Your task to perform on an android device: turn on priority inbox in the gmail app Image 0: 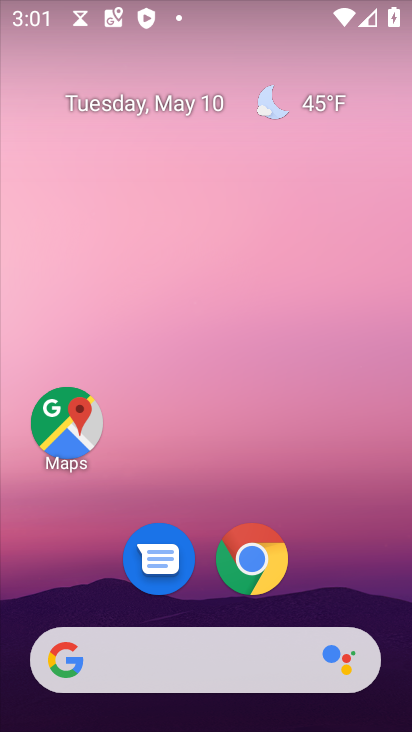
Step 0: drag from (358, 564) to (172, 4)
Your task to perform on an android device: turn on priority inbox in the gmail app Image 1: 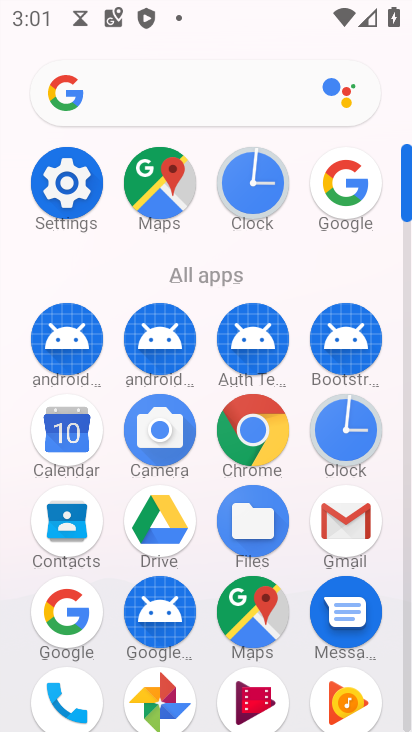
Step 1: click (251, 430)
Your task to perform on an android device: turn on priority inbox in the gmail app Image 2: 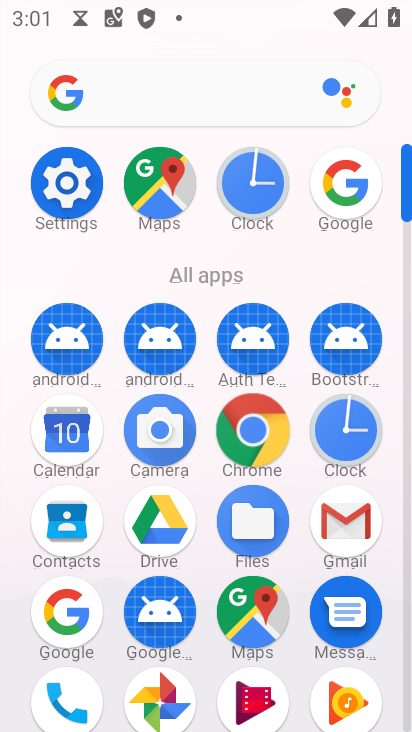
Step 2: click (243, 430)
Your task to perform on an android device: turn on priority inbox in the gmail app Image 3: 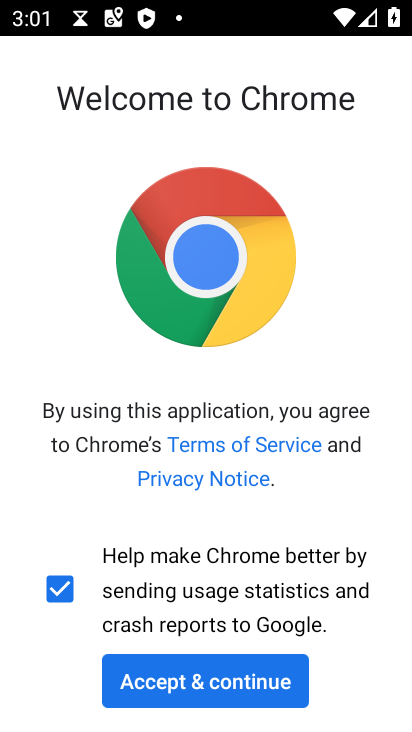
Step 3: click (192, 674)
Your task to perform on an android device: turn on priority inbox in the gmail app Image 4: 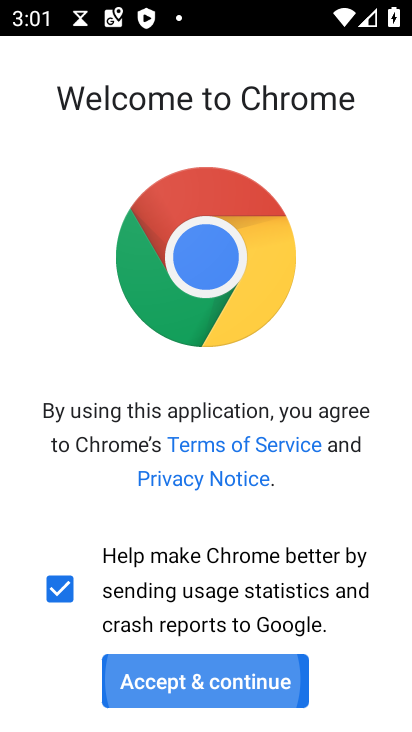
Step 4: click (192, 674)
Your task to perform on an android device: turn on priority inbox in the gmail app Image 5: 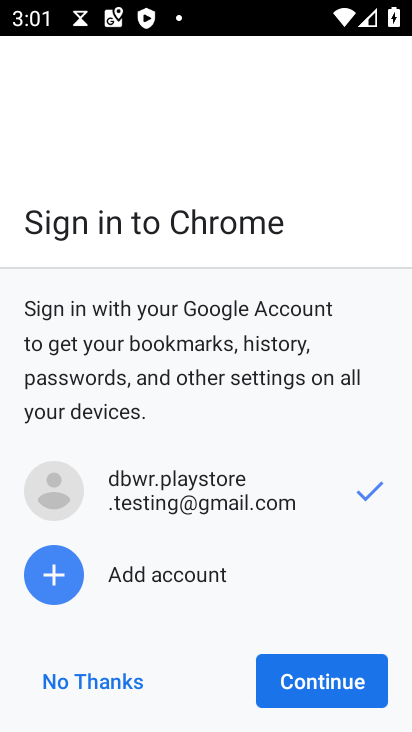
Step 5: click (192, 674)
Your task to perform on an android device: turn on priority inbox in the gmail app Image 6: 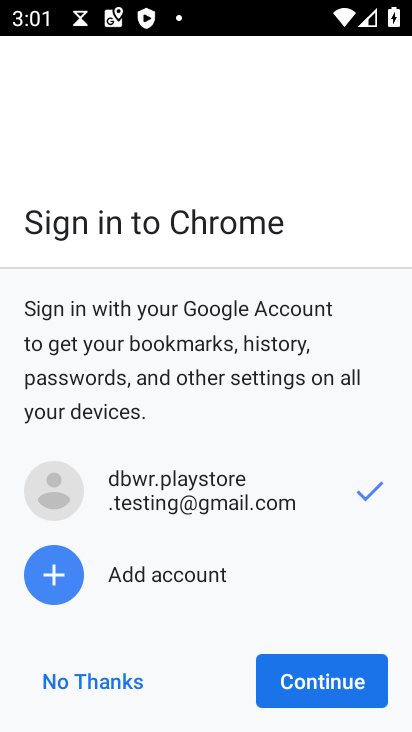
Step 6: click (193, 673)
Your task to perform on an android device: turn on priority inbox in the gmail app Image 7: 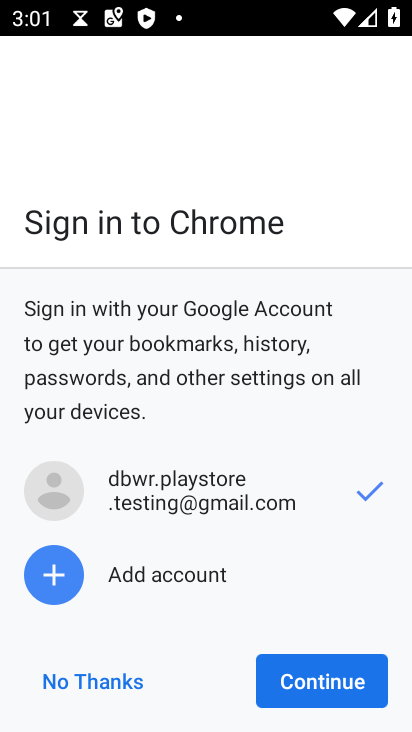
Step 7: click (334, 679)
Your task to perform on an android device: turn on priority inbox in the gmail app Image 8: 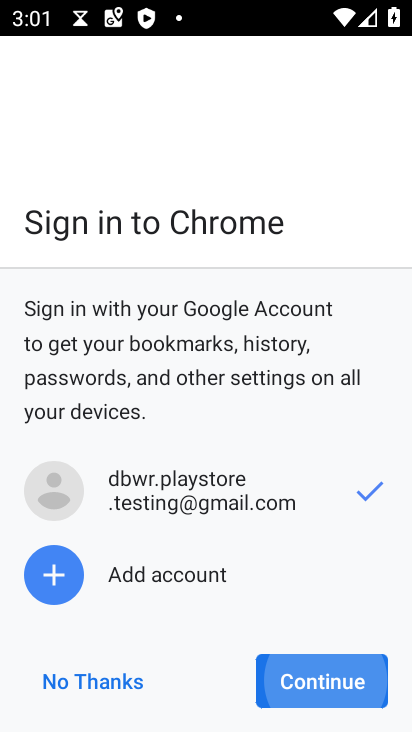
Step 8: click (327, 678)
Your task to perform on an android device: turn on priority inbox in the gmail app Image 9: 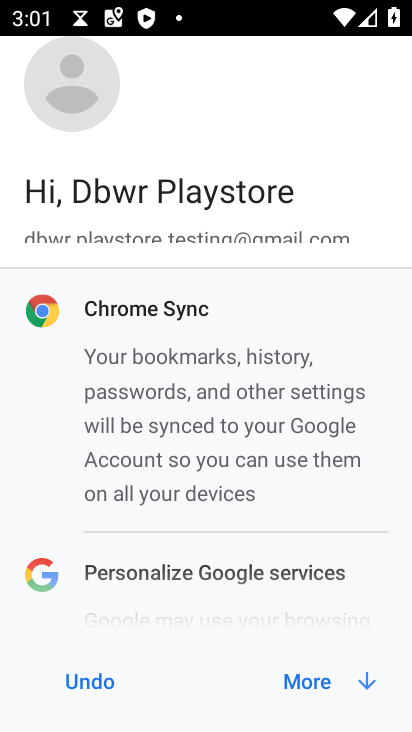
Step 9: click (327, 678)
Your task to perform on an android device: turn on priority inbox in the gmail app Image 10: 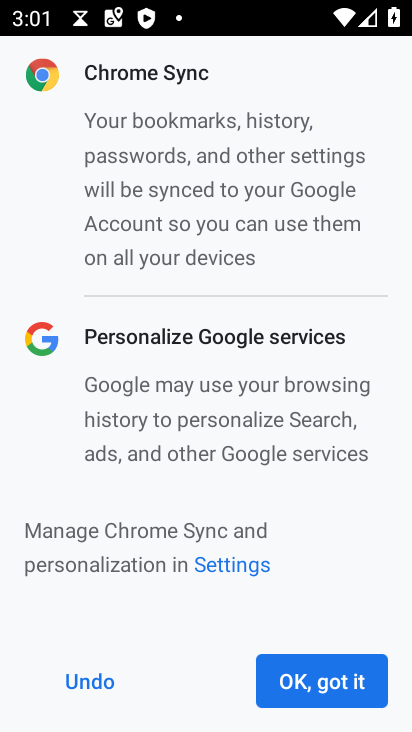
Step 10: click (327, 678)
Your task to perform on an android device: turn on priority inbox in the gmail app Image 11: 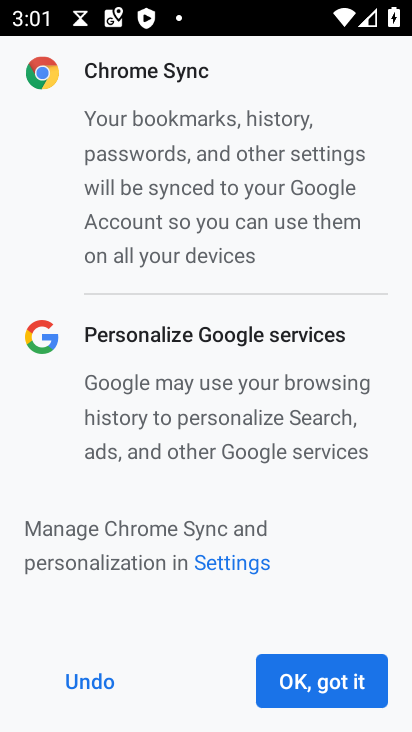
Step 11: click (327, 678)
Your task to perform on an android device: turn on priority inbox in the gmail app Image 12: 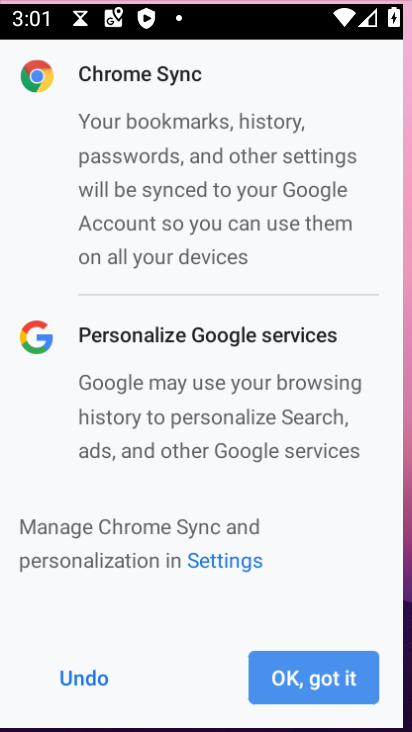
Step 12: click (328, 679)
Your task to perform on an android device: turn on priority inbox in the gmail app Image 13: 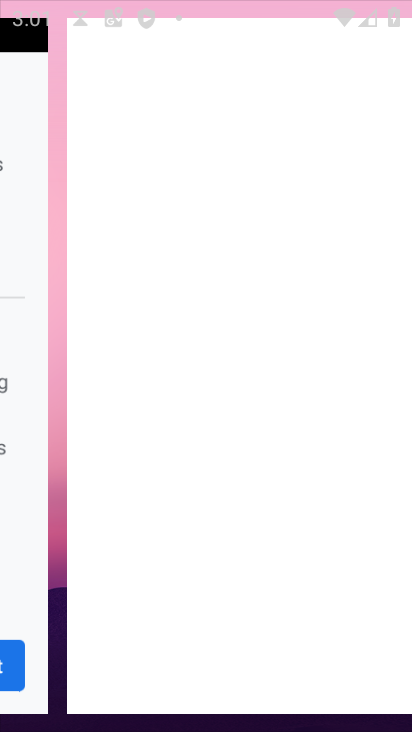
Step 13: click (328, 679)
Your task to perform on an android device: turn on priority inbox in the gmail app Image 14: 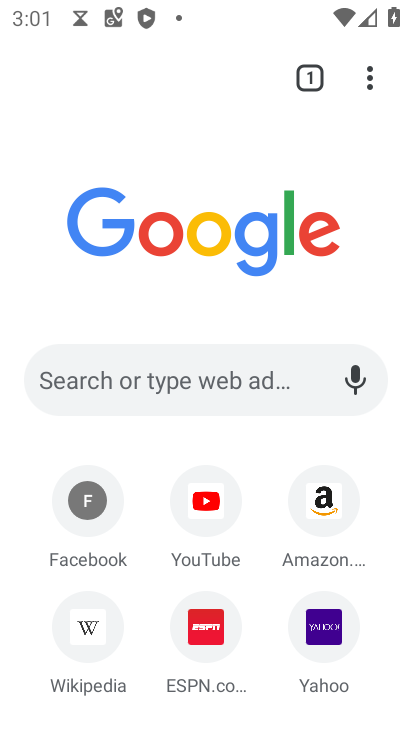
Step 14: press back button
Your task to perform on an android device: turn on priority inbox in the gmail app Image 15: 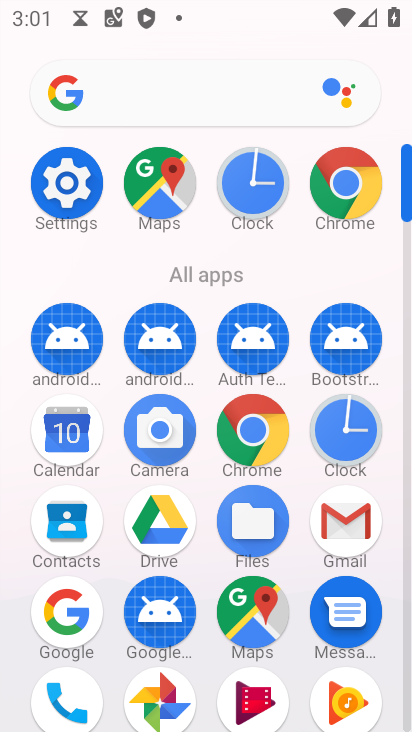
Step 15: click (322, 522)
Your task to perform on an android device: turn on priority inbox in the gmail app Image 16: 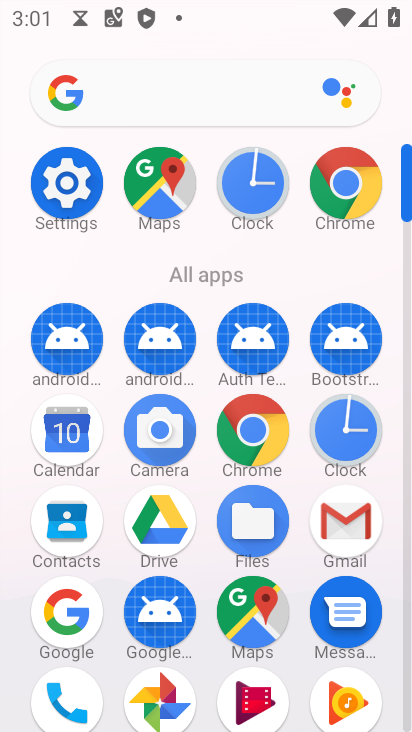
Step 16: click (322, 523)
Your task to perform on an android device: turn on priority inbox in the gmail app Image 17: 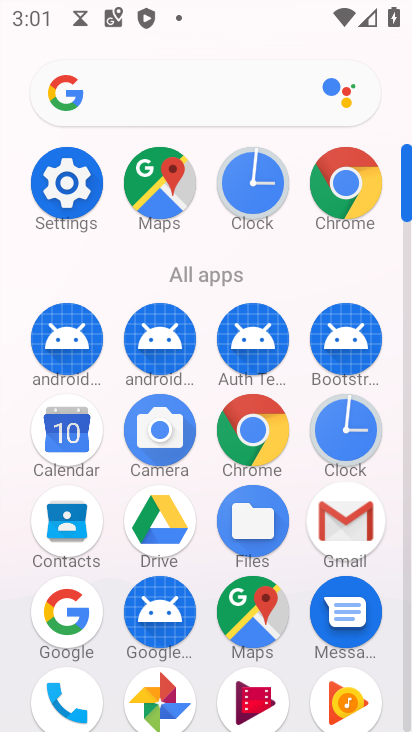
Step 17: click (322, 523)
Your task to perform on an android device: turn on priority inbox in the gmail app Image 18: 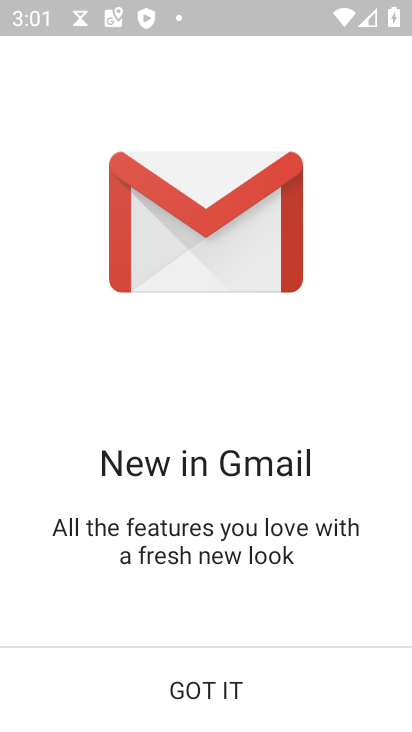
Step 18: click (191, 689)
Your task to perform on an android device: turn on priority inbox in the gmail app Image 19: 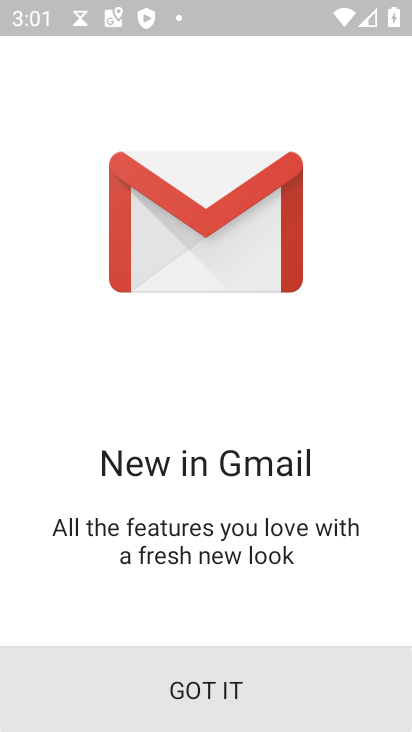
Step 19: click (190, 682)
Your task to perform on an android device: turn on priority inbox in the gmail app Image 20: 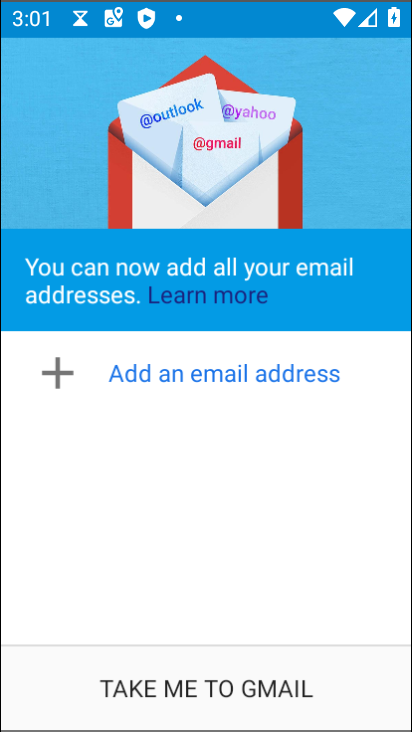
Step 20: click (192, 672)
Your task to perform on an android device: turn on priority inbox in the gmail app Image 21: 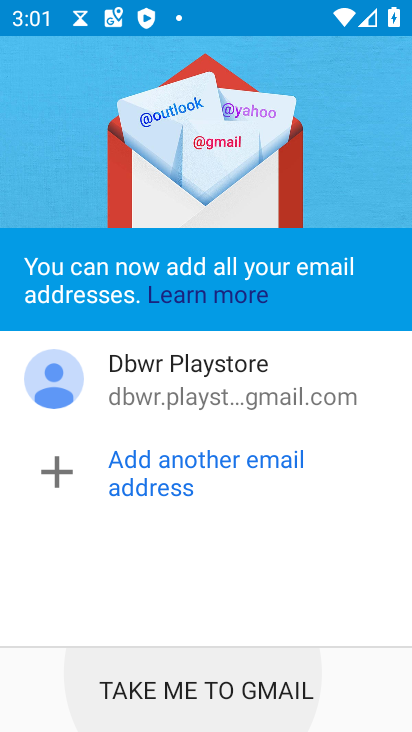
Step 21: click (192, 669)
Your task to perform on an android device: turn on priority inbox in the gmail app Image 22: 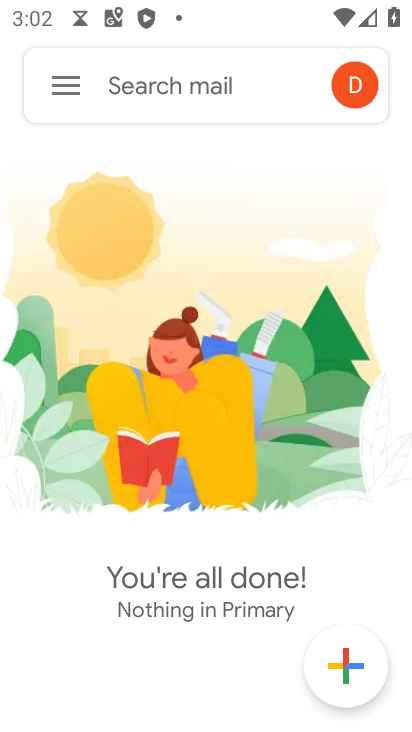
Step 22: click (65, 82)
Your task to perform on an android device: turn on priority inbox in the gmail app Image 23: 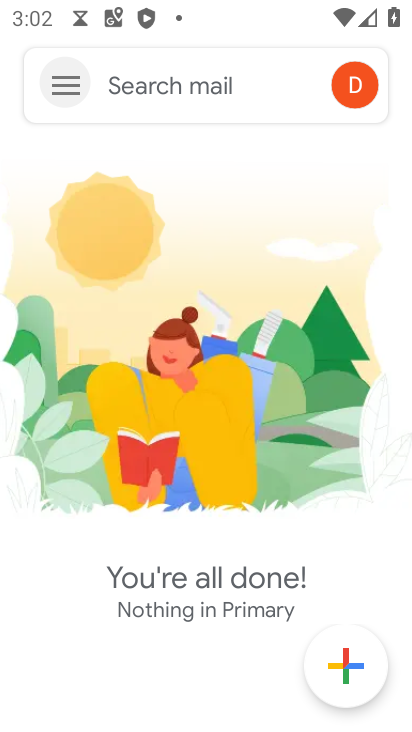
Step 23: click (66, 82)
Your task to perform on an android device: turn on priority inbox in the gmail app Image 24: 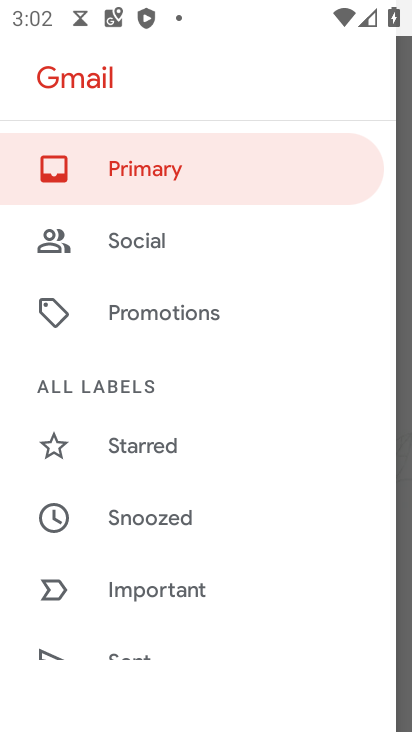
Step 24: drag from (230, 538) to (136, 147)
Your task to perform on an android device: turn on priority inbox in the gmail app Image 25: 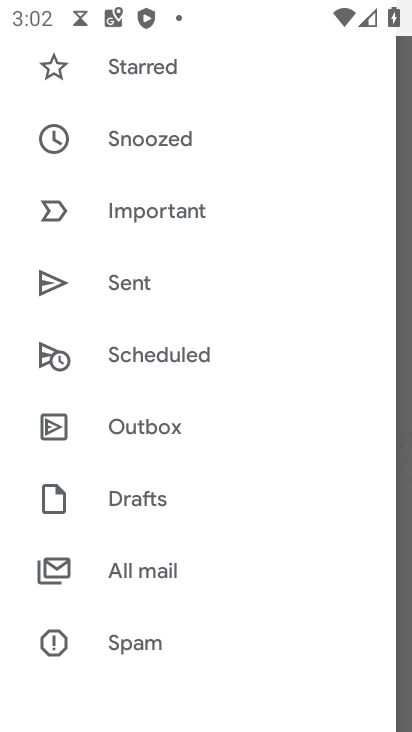
Step 25: drag from (174, 567) to (124, 234)
Your task to perform on an android device: turn on priority inbox in the gmail app Image 26: 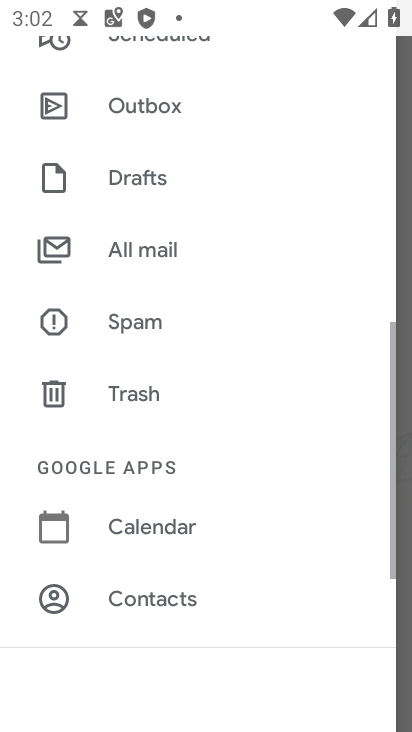
Step 26: drag from (171, 425) to (173, 99)
Your task to perform on an android device: turn on priority inbox in the gmail app Image 27: 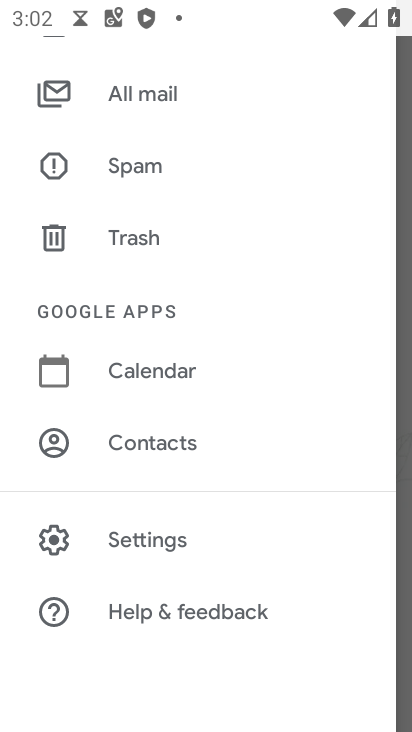
Step 27: click (138, 535)
Your task to perform on an android device: turn on priority inbox in the gmail app Image 28: 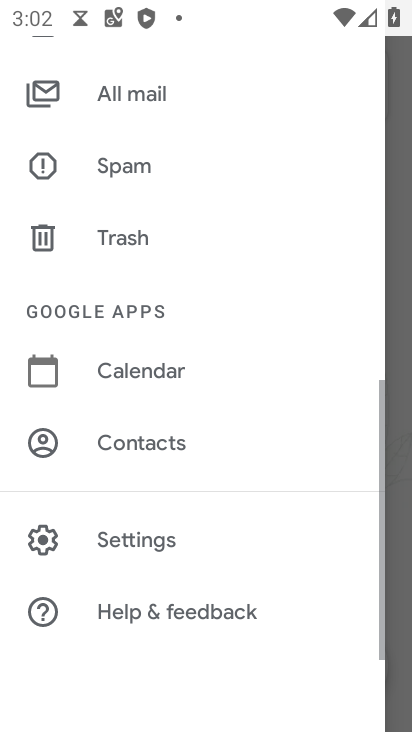
Step 28: click (138, 535)
Your task to perform on an android device: turn on priority inbox in the gmail app Image 29: 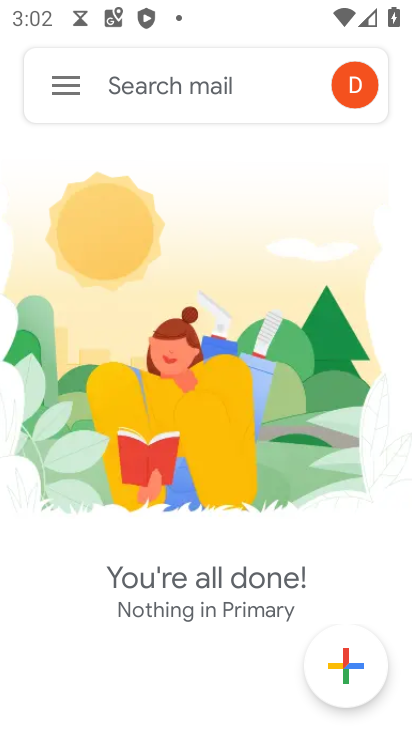
Step 29: click (138, 531)
Your task to perform on an android device: turn on priority inbox in the gmail app Image 30: 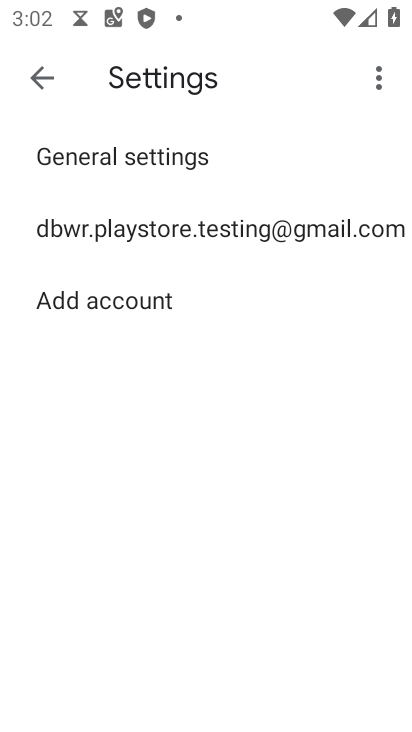
Step 30: click (126, 233)
Your task to perform on an android device: turn on priority inbox in the gmail app Image 31: 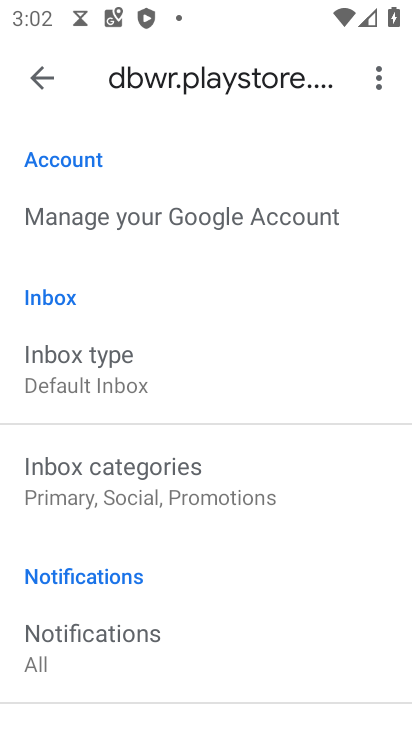
Step 31: drag from (147, 534) to (110, 202)
Your task to perform on an android device: turn on priority inbox in the gmail app Image 32: 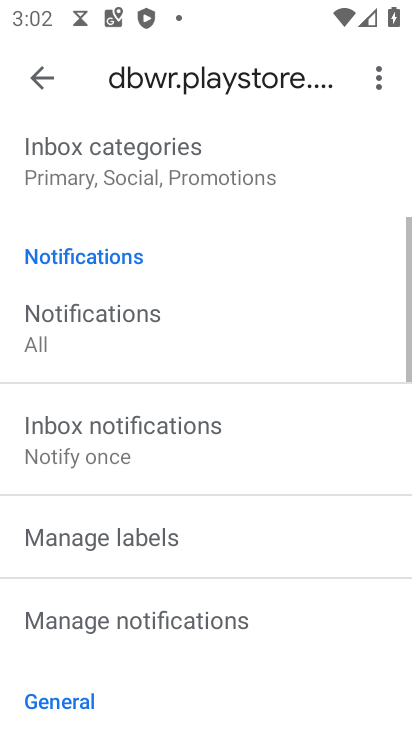
Step 32: drag from (155, 469) to (85, 40)
Your task to perform on an android device: turn on priority inbox in the gmail app Image 33: 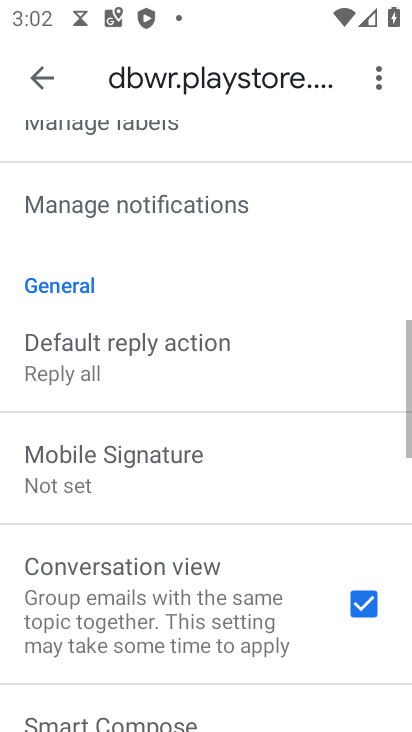
Step 33: drag from (174, 496) to (116, 55)
Your task to perform on an android device: turn on priority inbox in the gmail app Image 34: 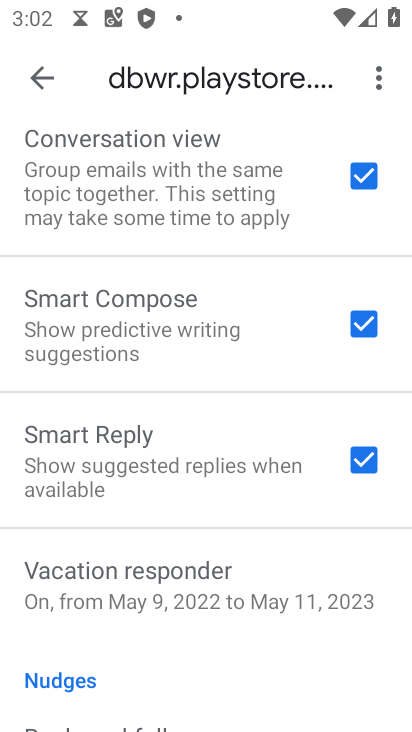
Step 34: drag from (138, 277) to (209, 517)
Your task to perform on an android device: turn on priority inbox in the gmail app Image 35: 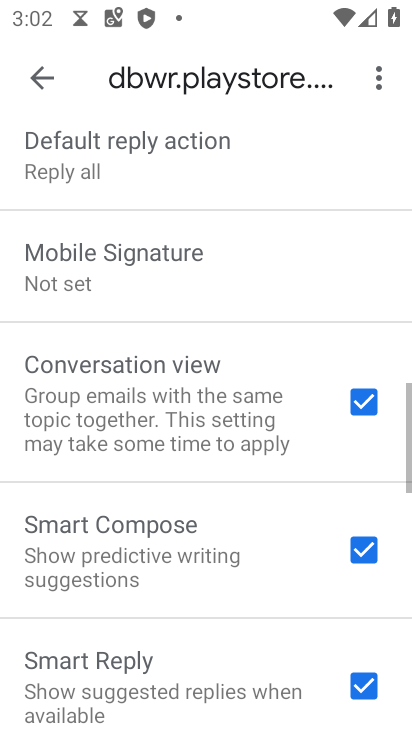
Step 35: drag from (121, 193) to (216, 538)
Your task to perform on an android device: turn on priority inbox in the gmail app Image 36: 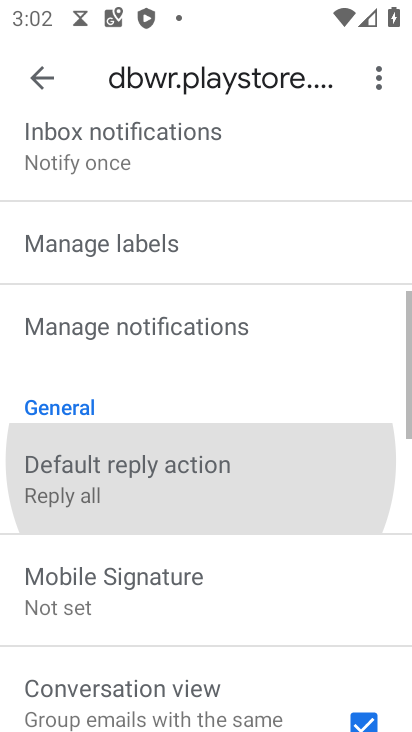
Step 36: drag from (118, 206) to (208, 528)
Your task to perform on an android device: turn on priority inbox in the gmail app Image 37: 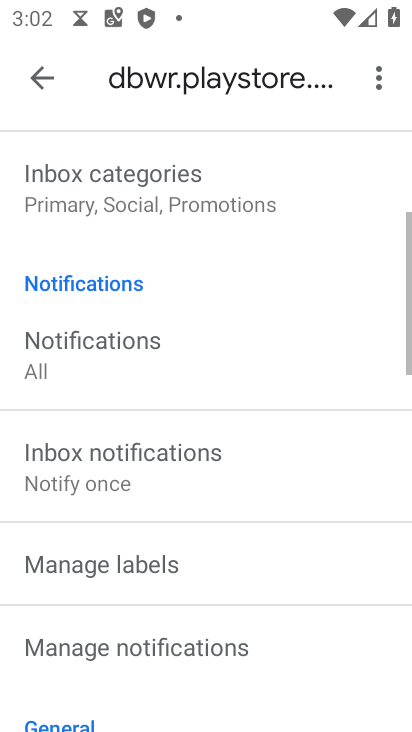
Step 37: drag from (140, 292) to (249, 620)
Your task to perform on an android device: turn on priority inbox in the gmail app Image 38: 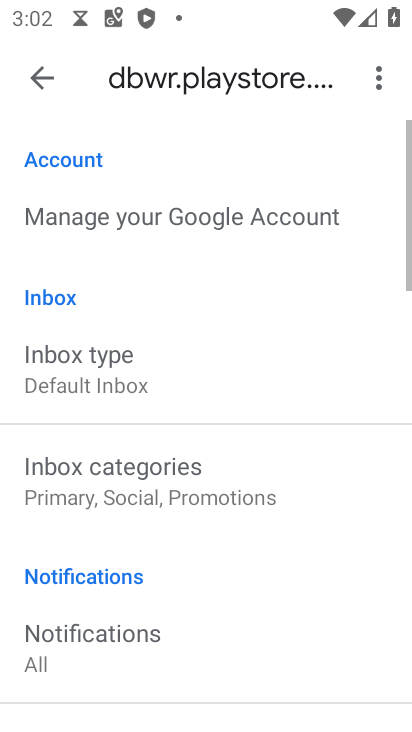
Step 38: drag from (161, 262) to (188, 542)
Your task to perform on an android device: turn on priority inbox in the gmail app Image 39: 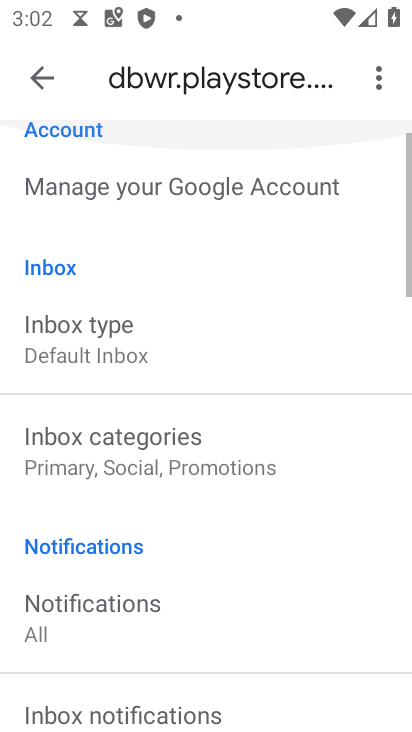
Step 39: drag from (125, 322) to (200, 602)
Your task to perform on an android device: turn on priority inbox in the gmail app Image 40: 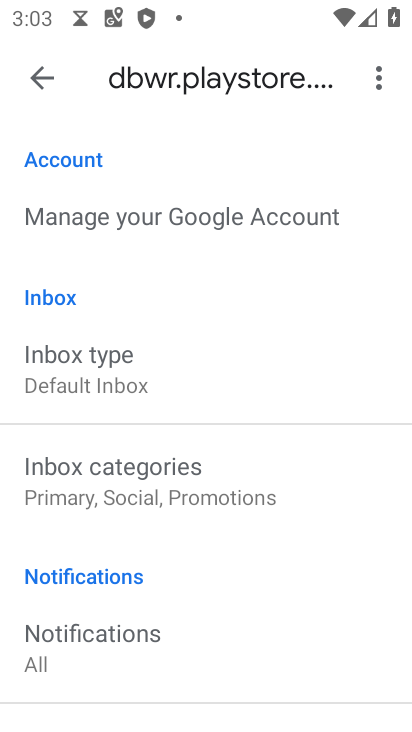
Step 40: click (60, 362)
Your task to perform on an android device: turn on priority inbox in the gmail app Image 41: 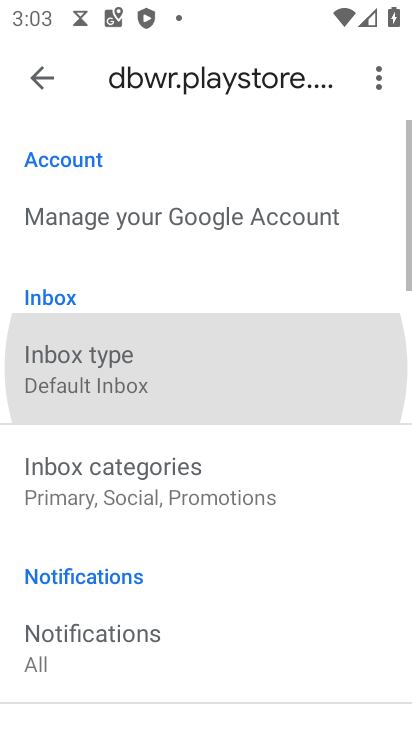
Step 41: click (60, 369)
Your task to perform on an android device: turn on priority inbox in the gmail app Image 42: 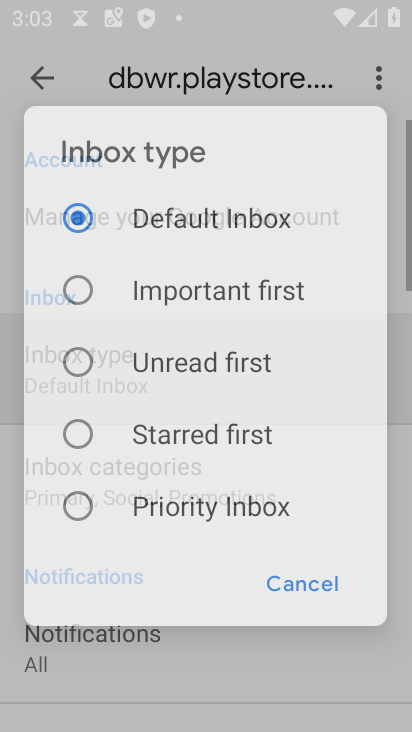
Step 42: click (60, 369)
Your task to perform on an android device: turn on priority inbox in the gmail app Image 43: 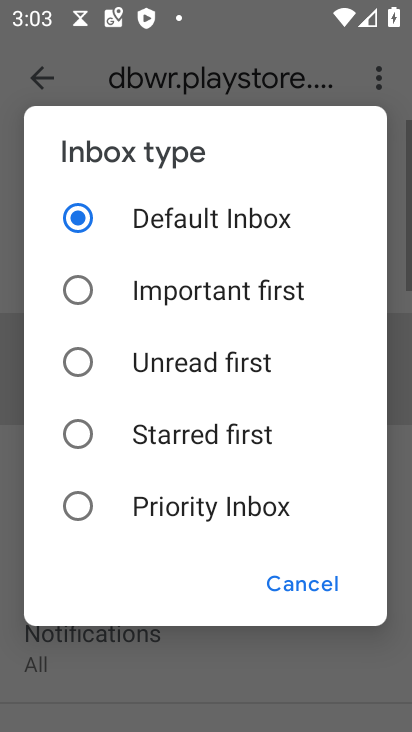
Step 43: click (61, 369)
Your task to perform on an android device: turn on priority inbox in the gmail app Image 44: 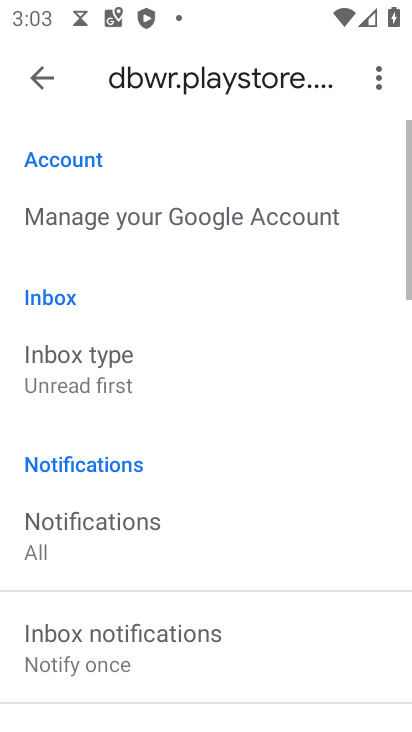
Step 44: click (82, 381)
Your task to perform on an android device: turn on priority inbox in the gmail app Image 45: 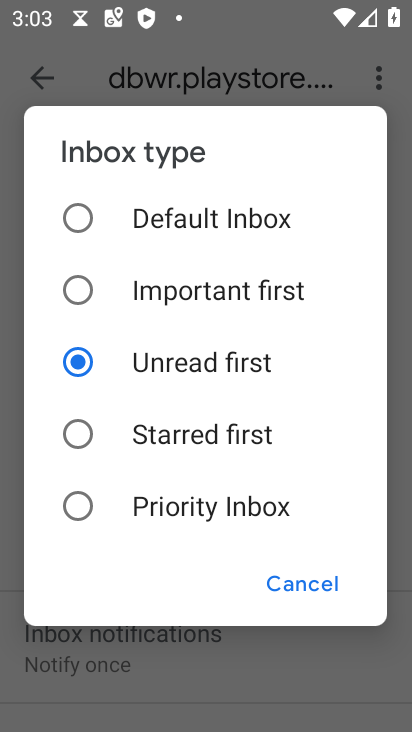
Step 45: click (81, 505)
Your task to perform on an android device: turn on priority inbox in the gmail app Image 46: 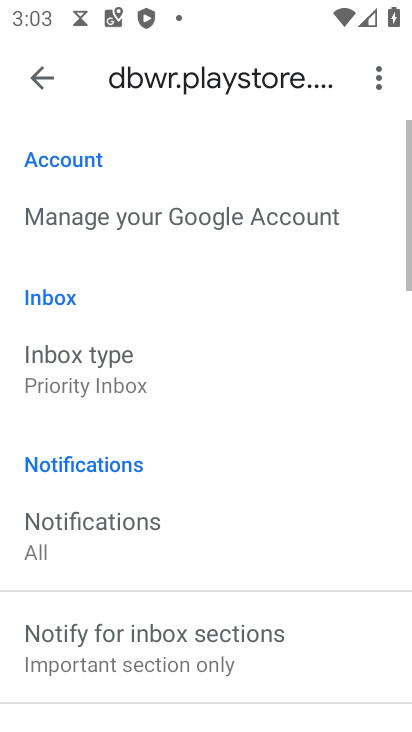
Step 46: click (81, 505)
Your task to perform on an android device: turn on priority inbox in the gmail app Image 47: 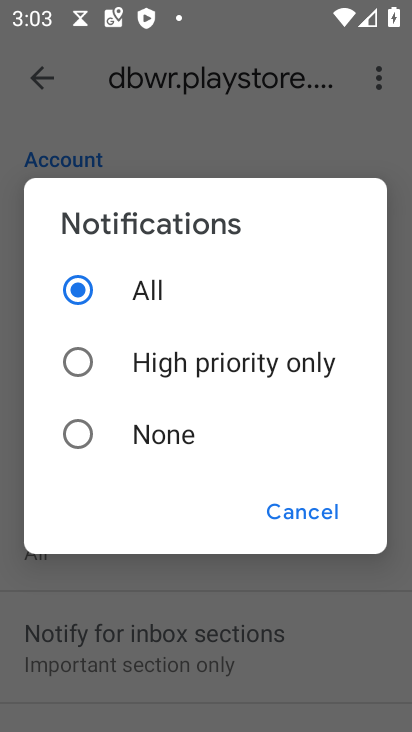
Step 47: click (307, 503)
Your task to perform on an android device: turn on priority inbox in the gmail app Image 48: 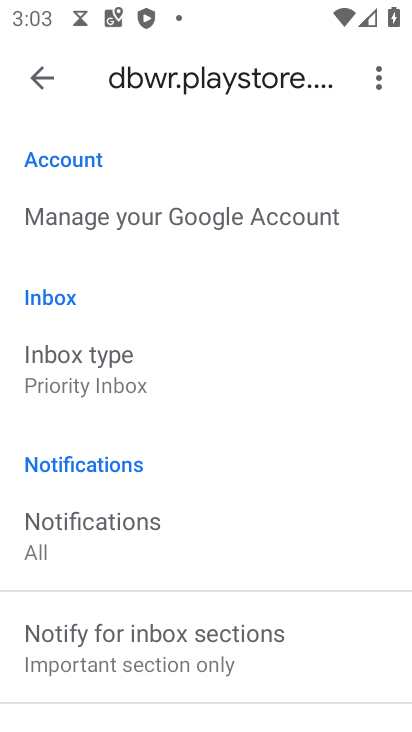
Step 48: task complete